Your task to perform on an android device: toggle location history Image 0: 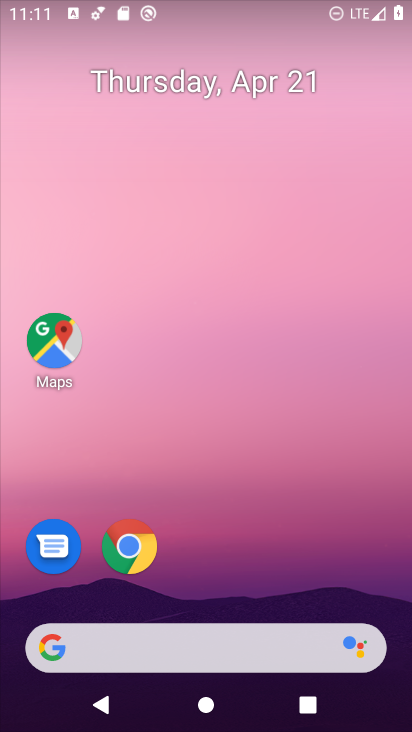
Step 0: drag from (390, 595) to (338, 111)
Your task to perform on an android device: toggle location history Image 1: 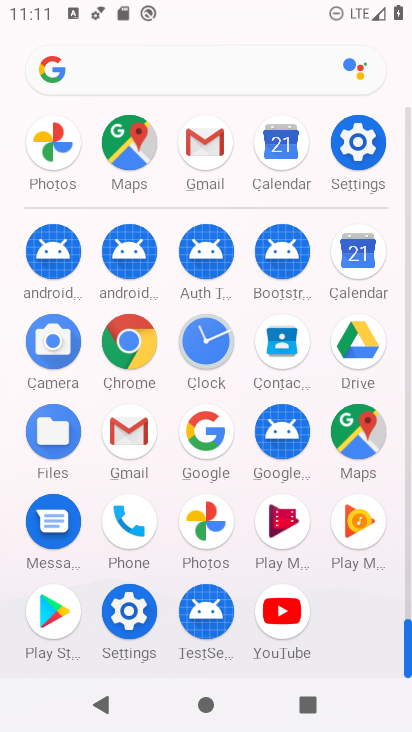
Step 1: click (119, 607)
Your task to perform on an android device: toggle location history Image 2: 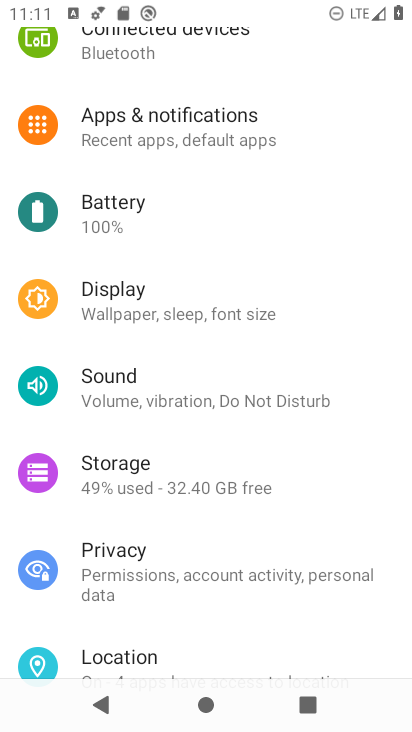
Step 2: drag from (333, 610) to (337, 221)
Your task to perform on an android device: toggle location history Image 3: 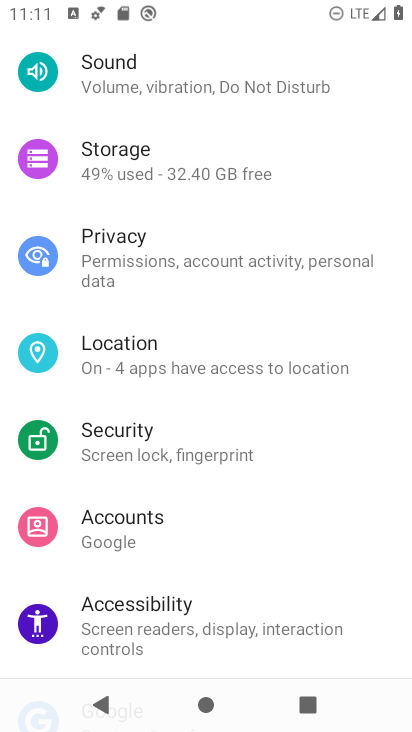
Step 3: click (130, 357)
Your task to perform on an android device: toggle location history Image 4: 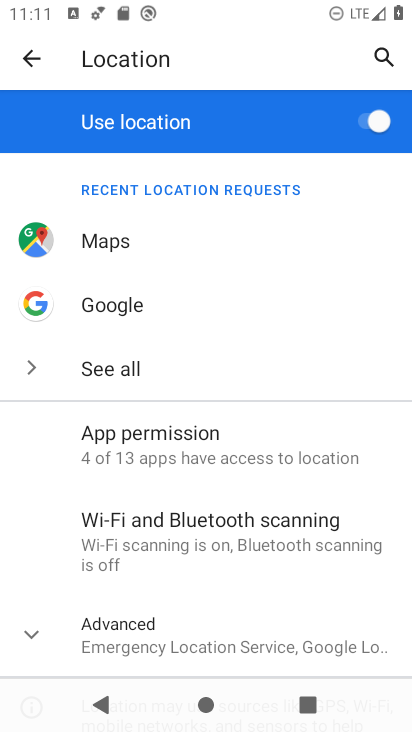
Step 4: click (25, 632)
Your task to perform on an android device: toggle location history Image 5: 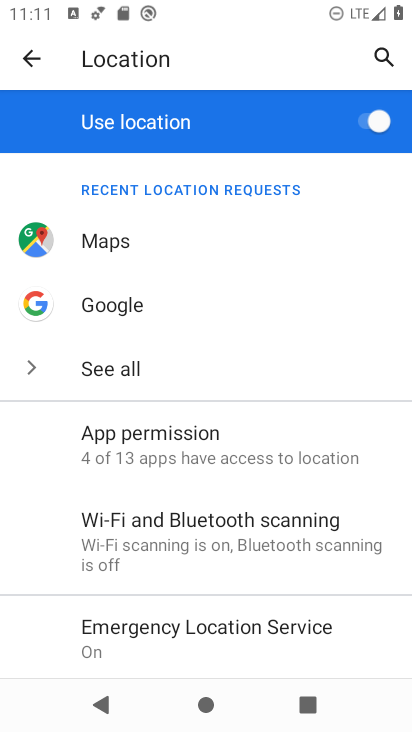
Step 5: drag from (256, 629) to (259, 255)
Your task to perform on an android device: toggle location history Image 6: 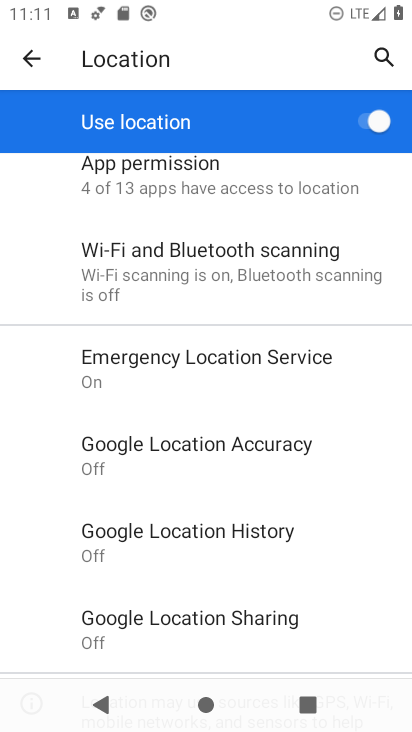
Step 6: click (135, 533)
Your task to perform on an android device: toggle location history Image 7: 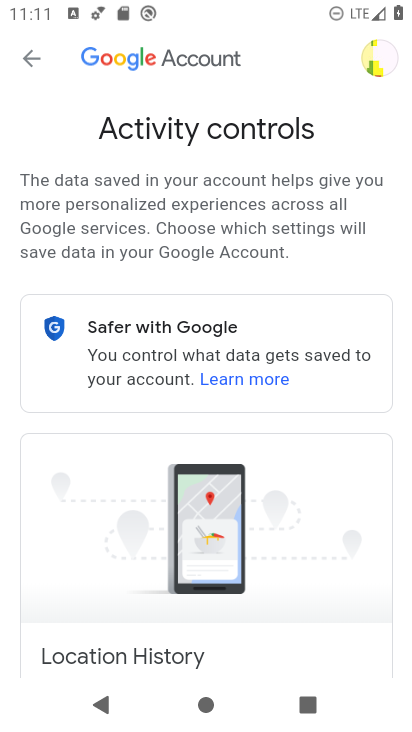
Step 7: drag from (312, 606) to (294, 297)
Your task to perform on an android device: toggle location history Image 8: 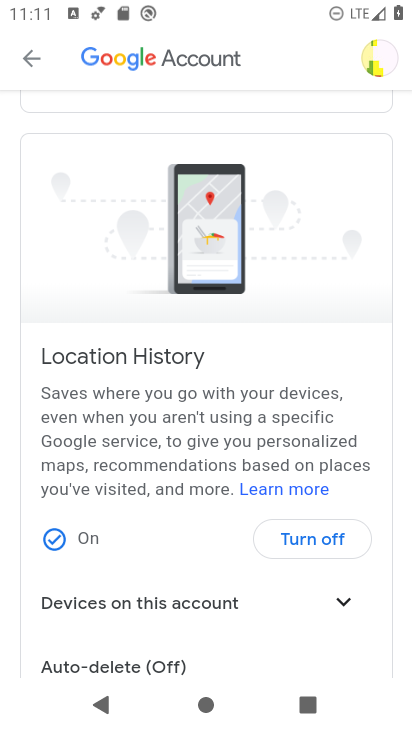
Step 8: click (310, 536)
Your task to perform on an android device: toggle location history Image 9: 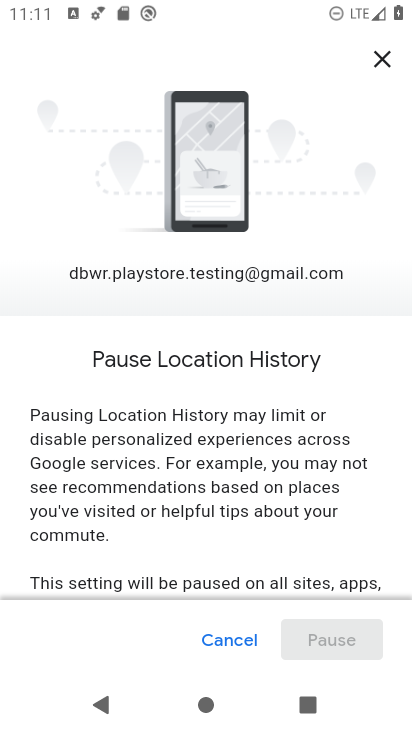
Step 9: drag from (287, 566) to (288, 173)
Your task to perform on an android device: toggle location history Image 10: 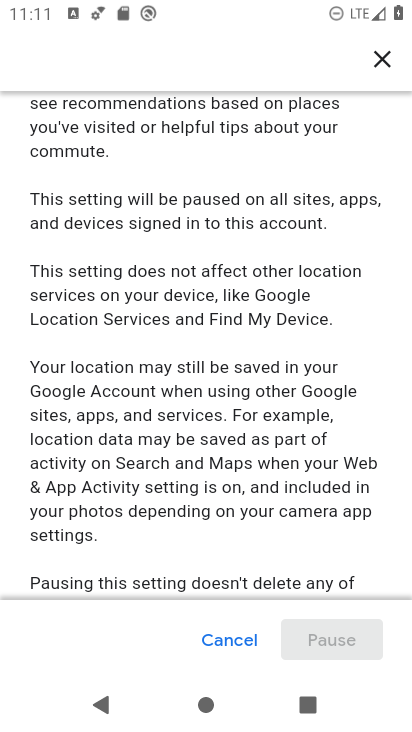
Step 10: drag from (225, 537) to (243, 104)
Your task to perform on an android device: toggle location history Image 11: 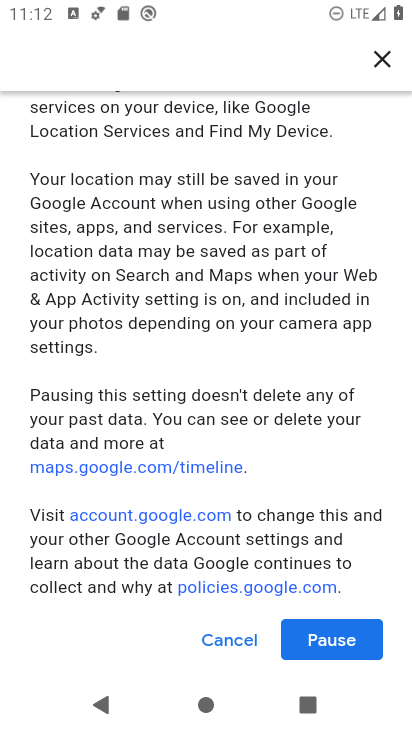
Step 11: click (324, 641)
Your task to perform on an android device: toggle location history Image 12: 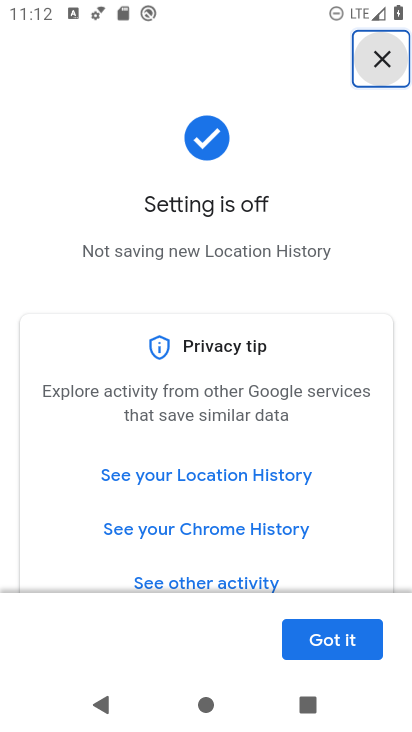
Step 12: click (324, 641)
Your task to perform on an android device: toggle location history Image 13: 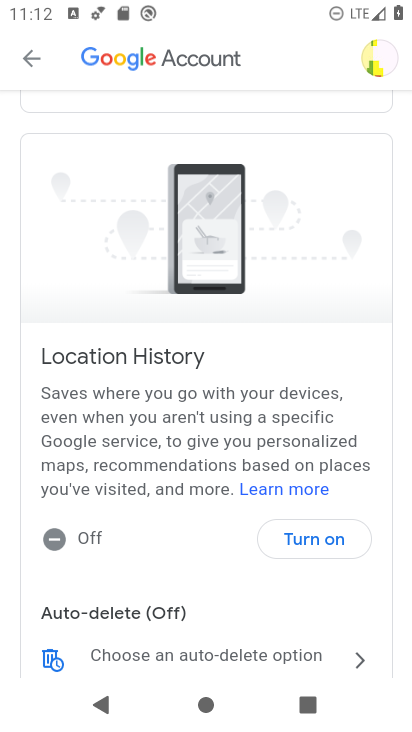
Step 13: task complete